Your task to perform on an android device: check the backup settings in the google photos Image 0: 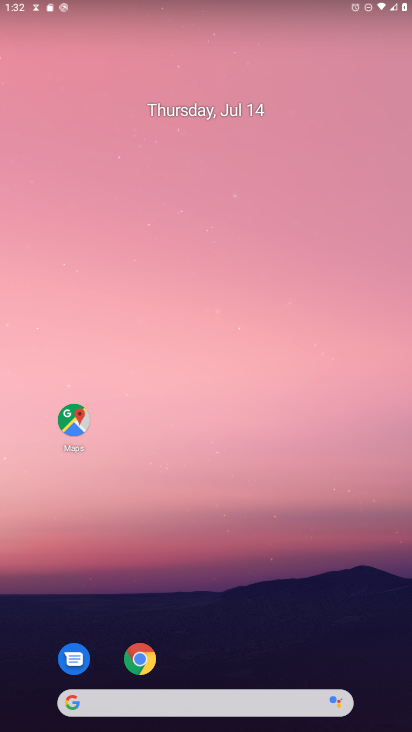
Step 0: drag from (30, 693) to (118, 371)
Your task to perform on an android device: check the backup settings in the google photos Image 1: 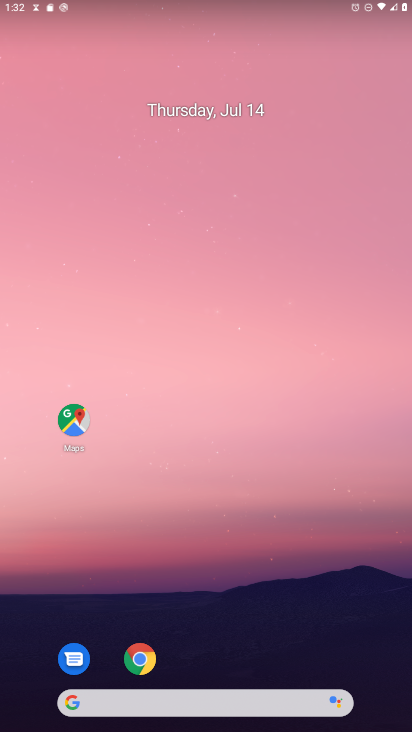
Step 1: drag from (189, 321) to (263, 159)
Your task to perform on an android device: check the backup settings in the google photos Image 2: 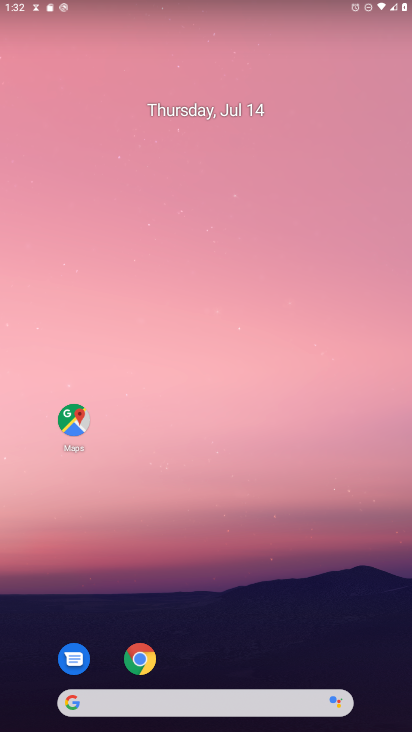
Step 2: drag from (66, 634) to (297, 112)
Your task to perform on an android device: check the backup settings in the google photos Image 3: 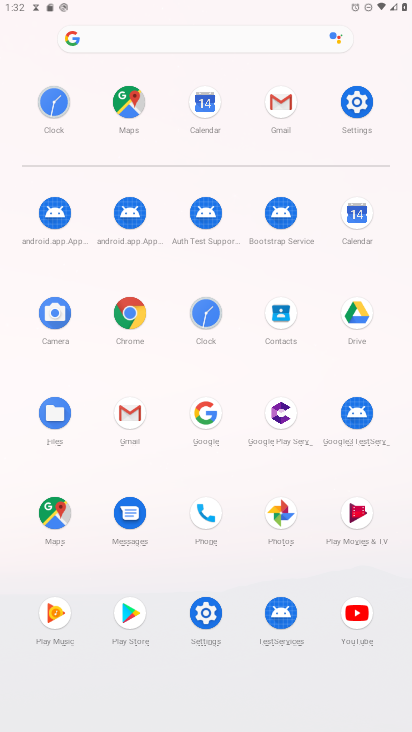
Step 3: click (281, 522)
Your task to perform on an android device: check the backup settings in the google photos Image 4: 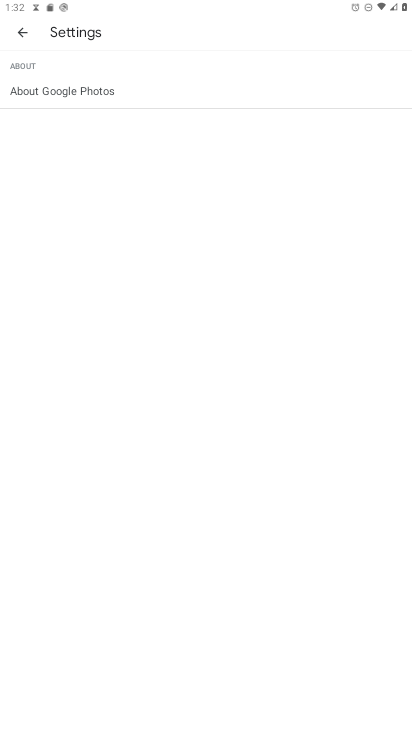
Step 4: click (17, 29)
Your task to perform on an android device: check the backup settings in the google photos Image 5: 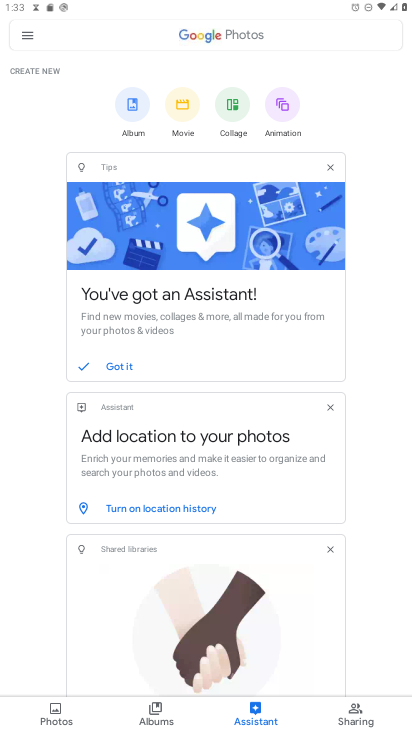
Step 5: click (32, 35)
Your task to perform on an android device: check the backup settings in the google photos Image 6: 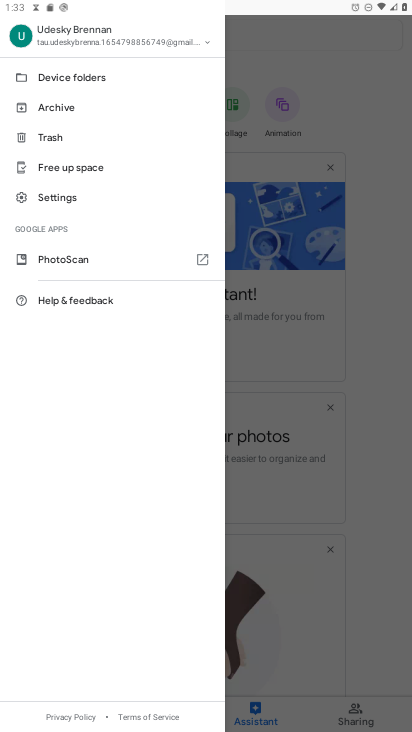
Step 6: click (47, 202)
Your task to perform on an android device: check the backup settings in the google photos Image 7: 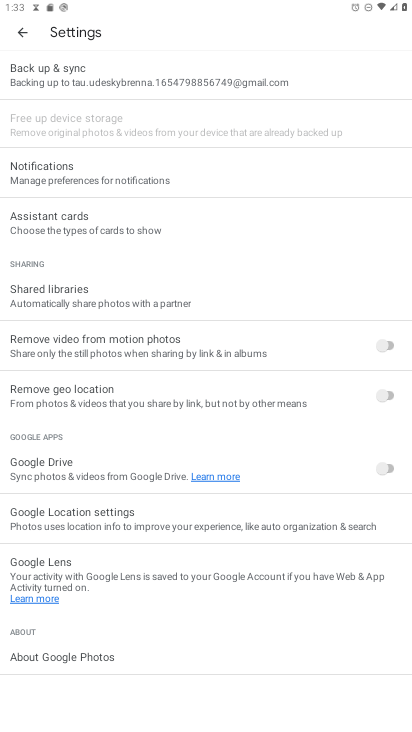
Step 7: click (104, 79)
Your task to perform on an android device: check the backup settings in the google photos Image 8: 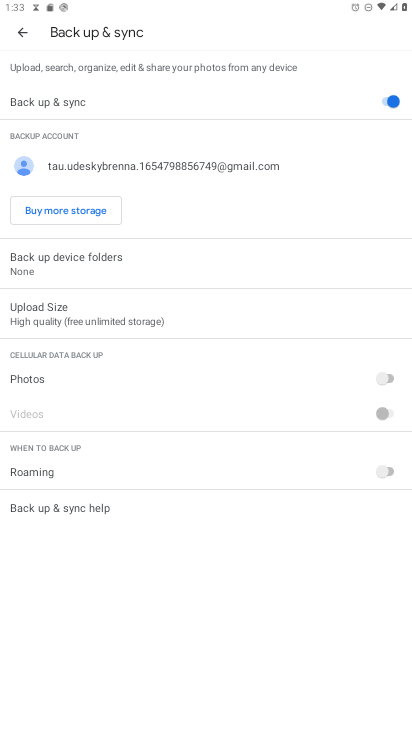
Step 8: task complete